Your task to perform on an android device: Open the map Image 0: 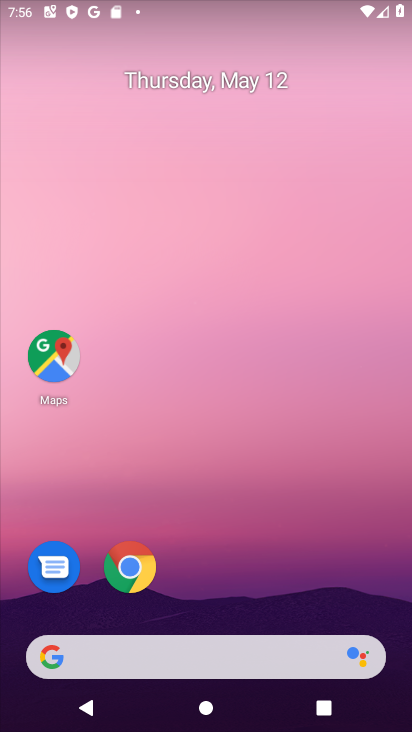
Step 0: drag from (278, 626) to (399, 316)
Your task to perform on an android device: Open the map Image 1: 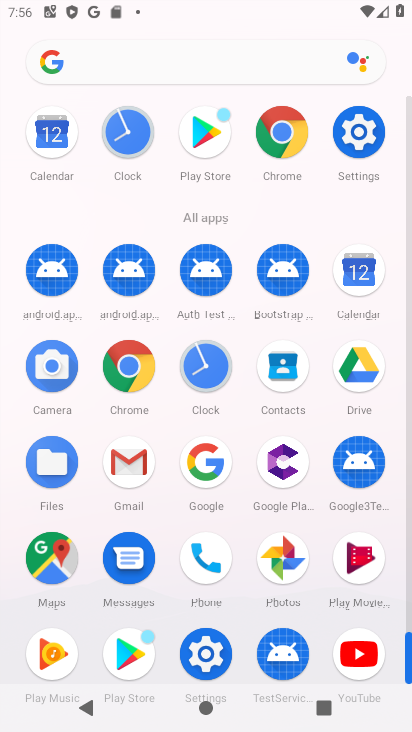
Step 1: click (55, 562)
Your task to perform on an android device: Open the map Image 2: 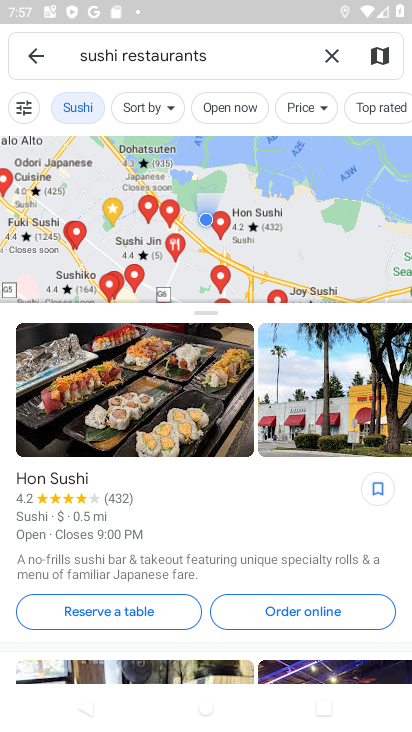
Step 2: task complete